Your task to perform on an android device: Empty the shopping cart on newegg. Search for "acer nitro" on newegg, select the first entry, add it to the cart, then select checkout. Image 0: 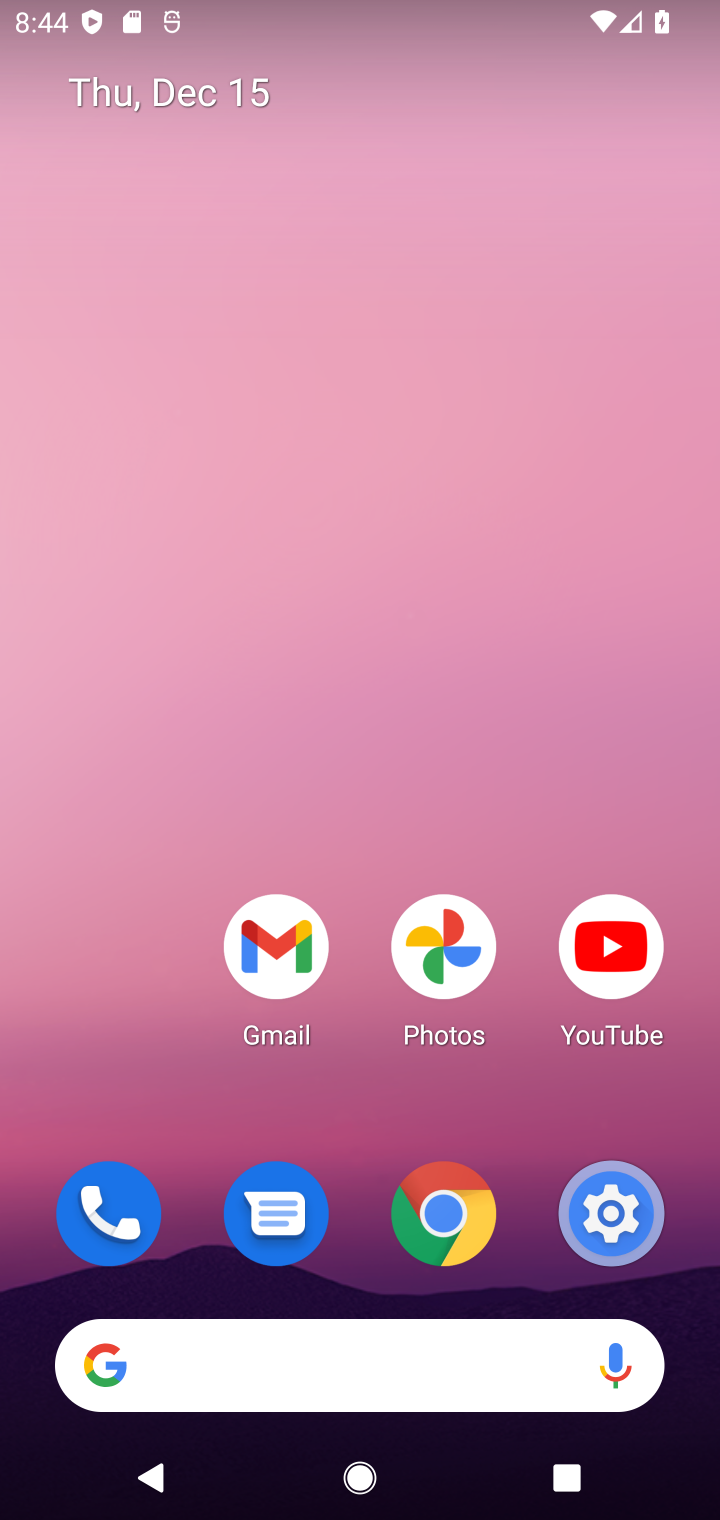
Step 0: drag from (370, 808) to (370, 89)
Your task to perform on an android device: Empty the shopping cart on newegg. Search for "acer nitro" on newegg, select the first entry, add it to the cart, then select checkout. Image 1: 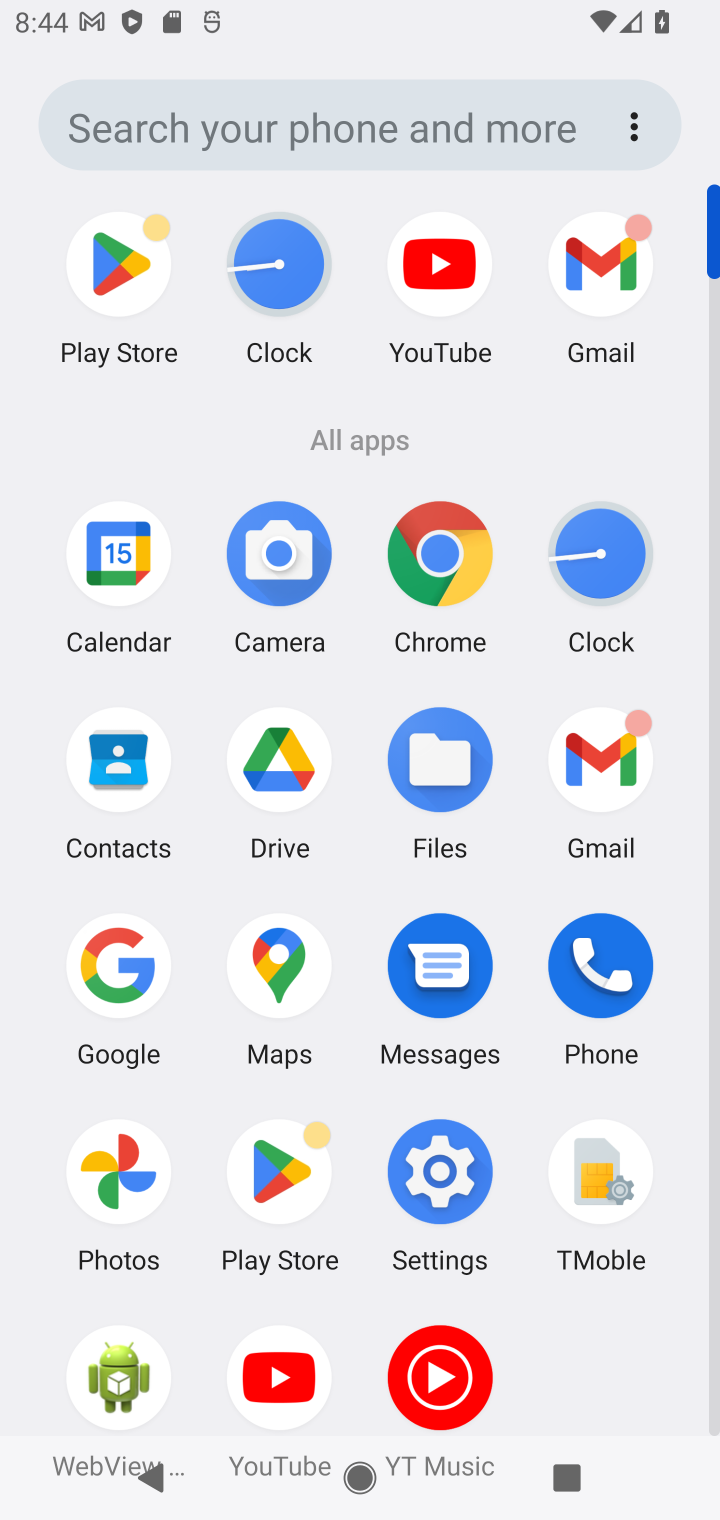
Step 1: click (112, 951)
Your task to perform on an android device: Empty the shopping cart on newegg. Search for "acer nitro" on newegg, select the first entry, add it to the cart, then select checkout. Image 2: 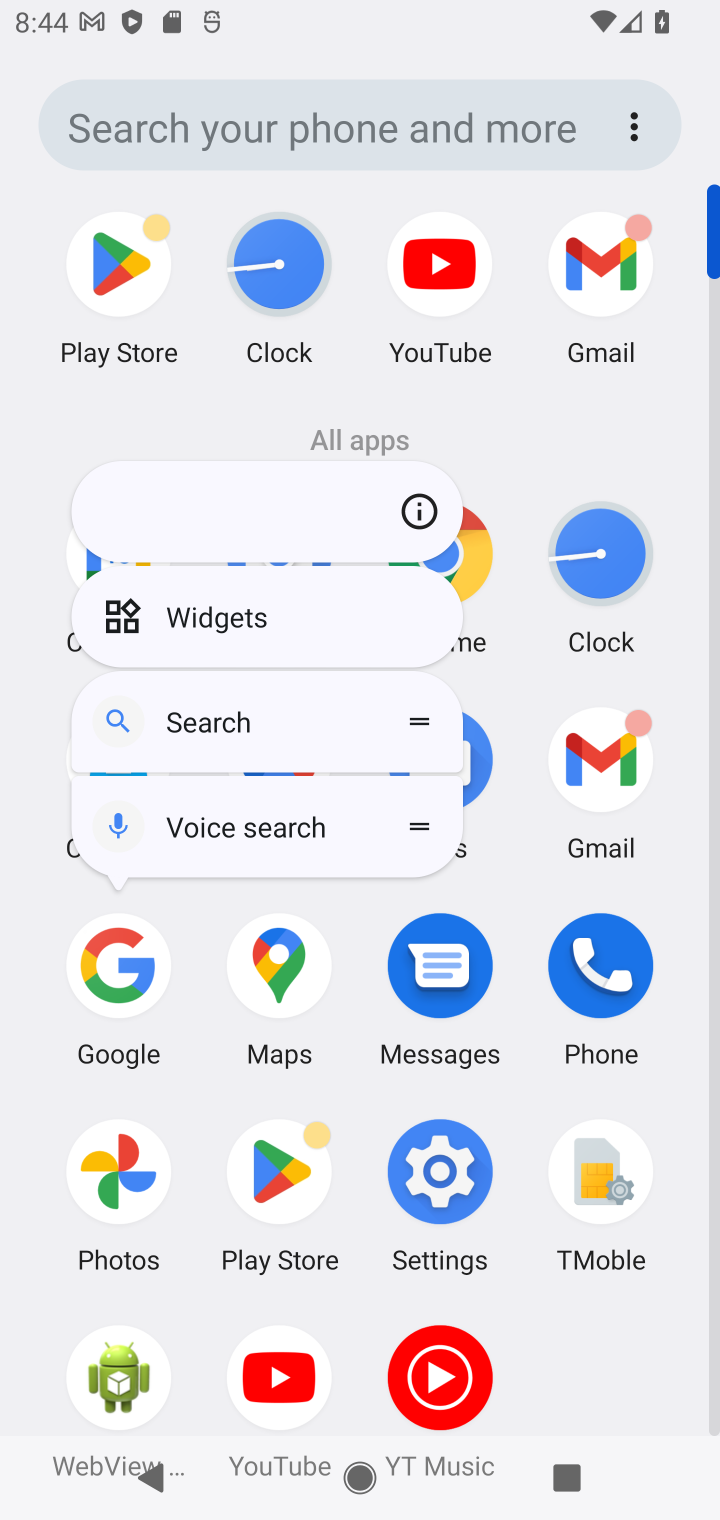
Step 2: click (132, 969)
Your task to perform on an android device: Empty the shopping cart on newegg. Search for "acer nitro" on newegg, select the first entry, add it to the cart, then select checkout. Image 3: 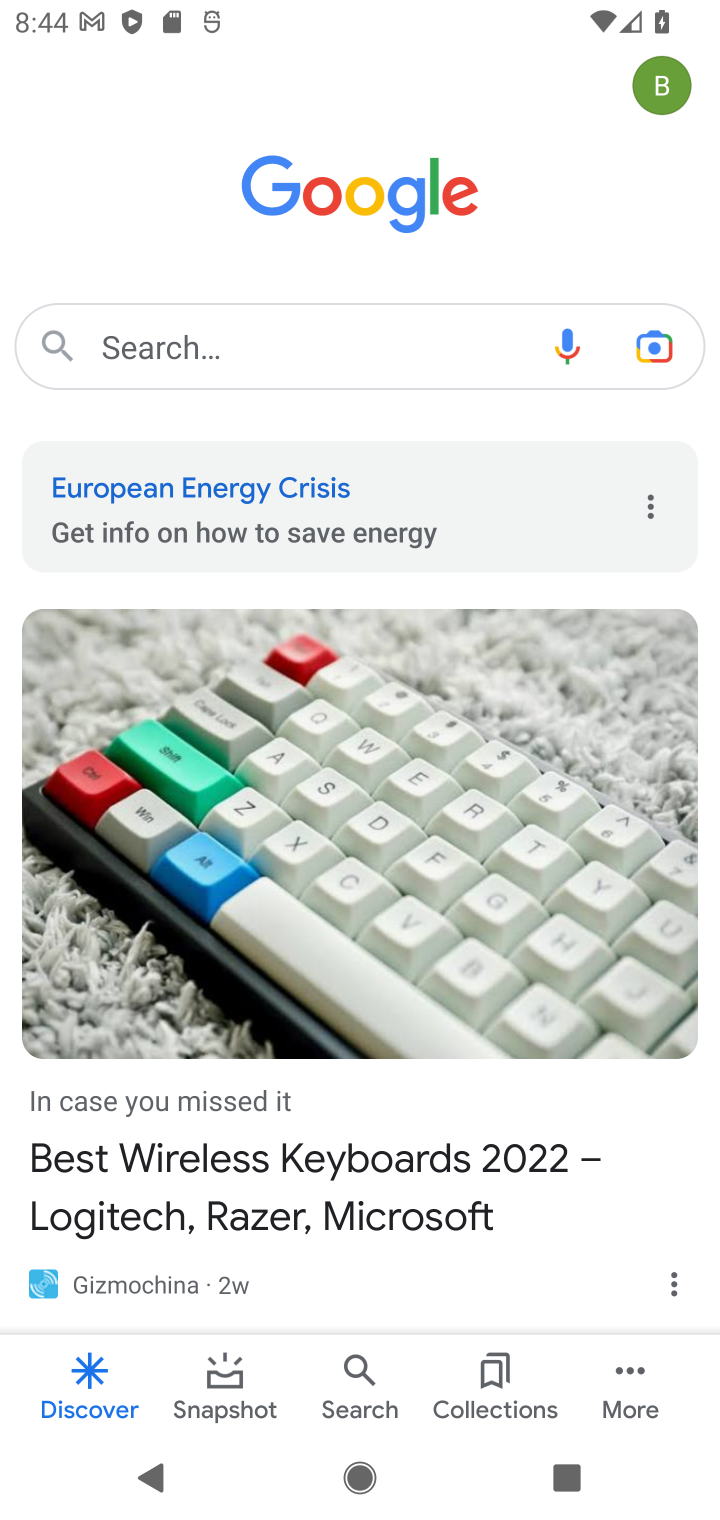
Step 3: click (155, 333)
Your task to perform on an android device: Empty the shopping cart on newegg. Search for "acer nitro" on newegg, select the first entry, add it to the cart, then select checkout. Image 4: 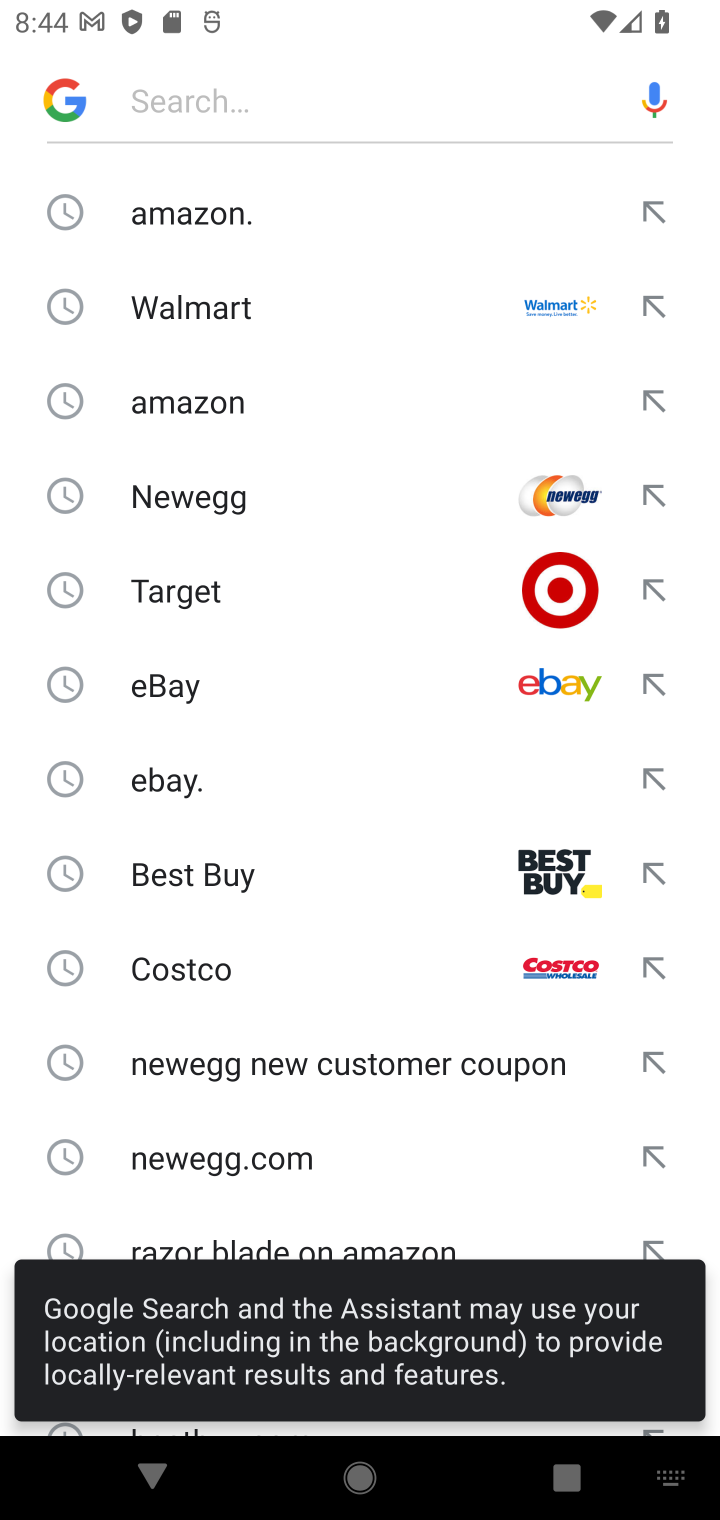
Step 4: click (186, 492)
Your task to perform on an android device: Empty the shopping cart on newegg. Search for "acer nitro" on newegg, select the first entry, add it to the cart, then select checkout. Image 5: 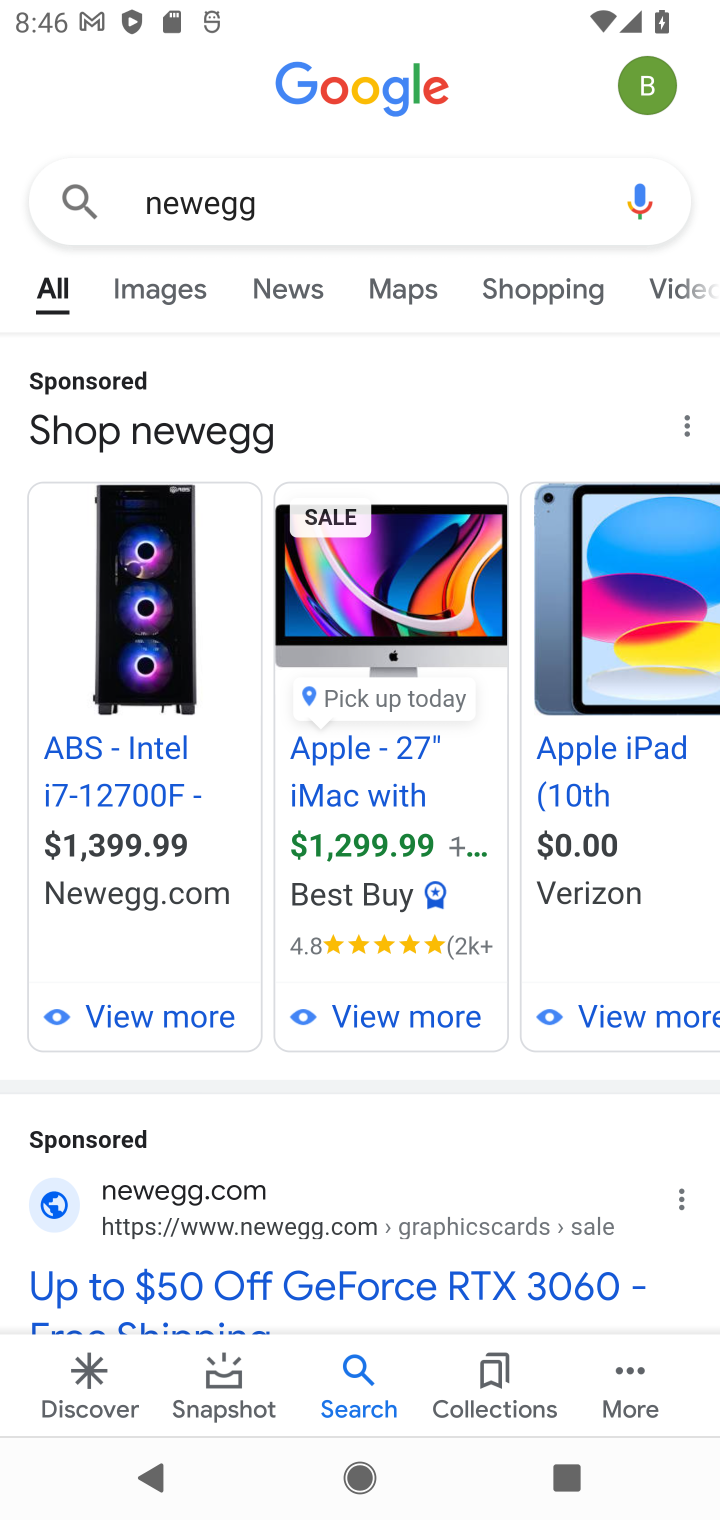
Step 5: drag from (301, 1006) to (382, 332)
Your task to perform on an android device: Empty the shopping cart on newegg. Search for "acer nitro" on newegg, select the first entry, add it to the cart, then select checkout. Image 6: 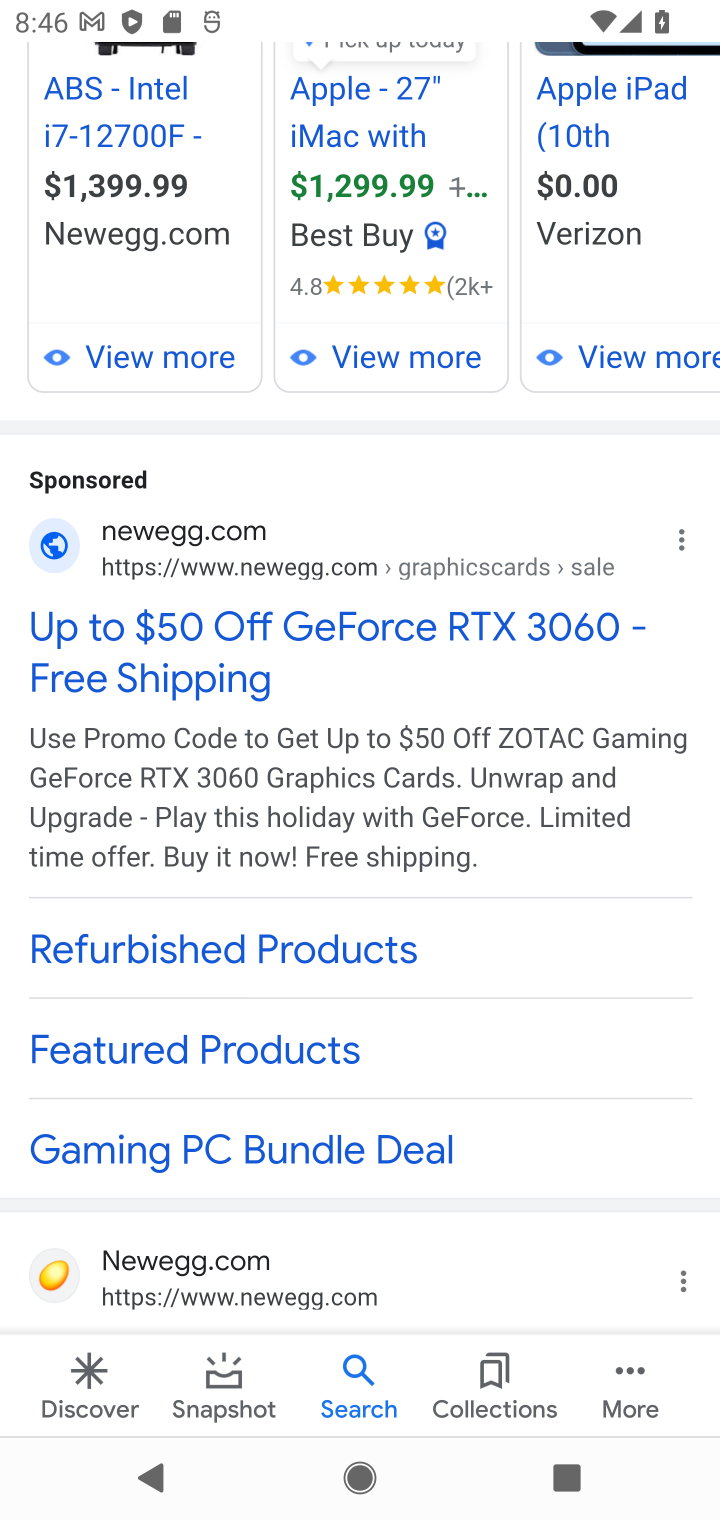
Step 6: drag from (246, 1167) to (253, 506)
Your task to perform on an android device: Empty the shopping cart on newegg. Search for "acer nitro" on newegg, select the first entry, add it to the cart, then select checkout. Image 7: 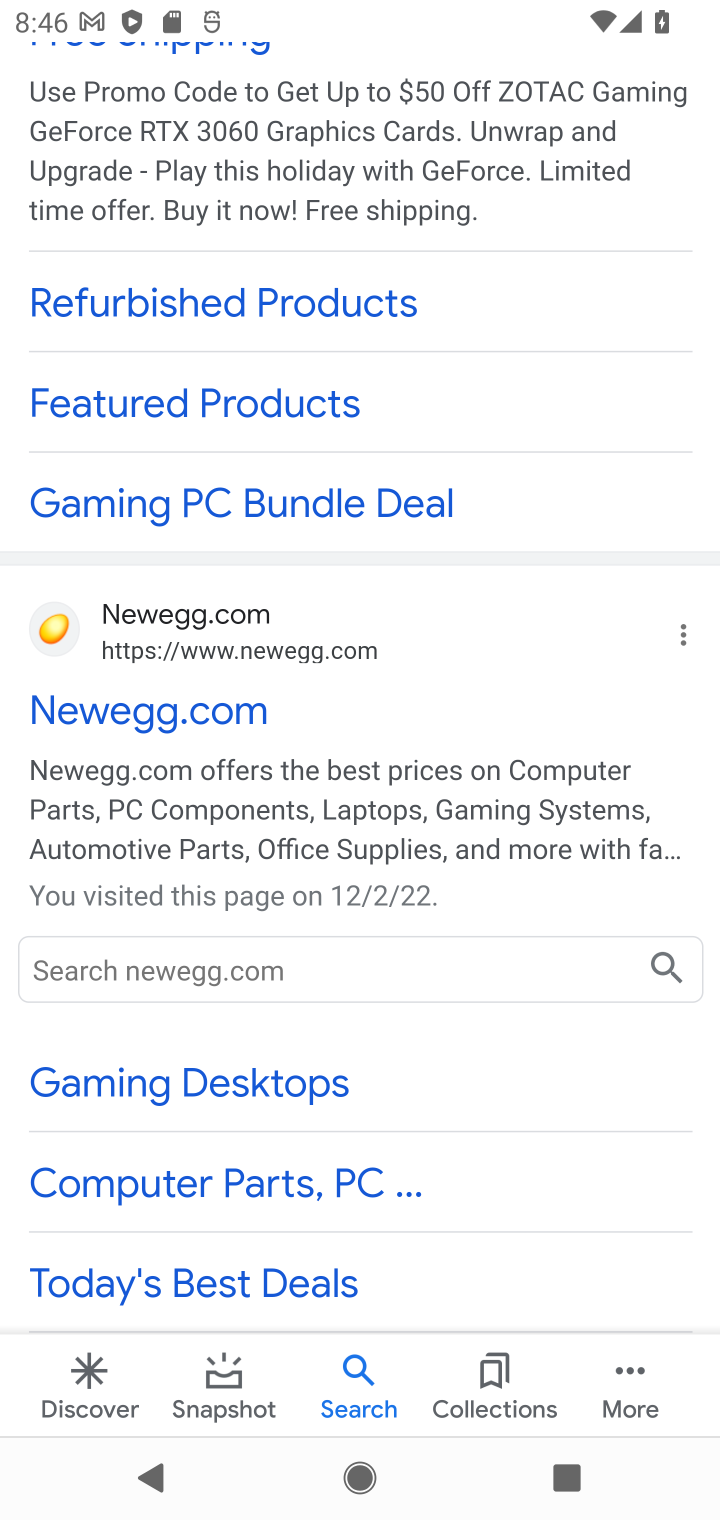
Step 7: click (162, 718)
Your task to perform on an android device: Empty the shopping cart on newegg. Search for "acer nitro" on newegg, select the first entry, add it to the cart, then select checkout. Image 8: 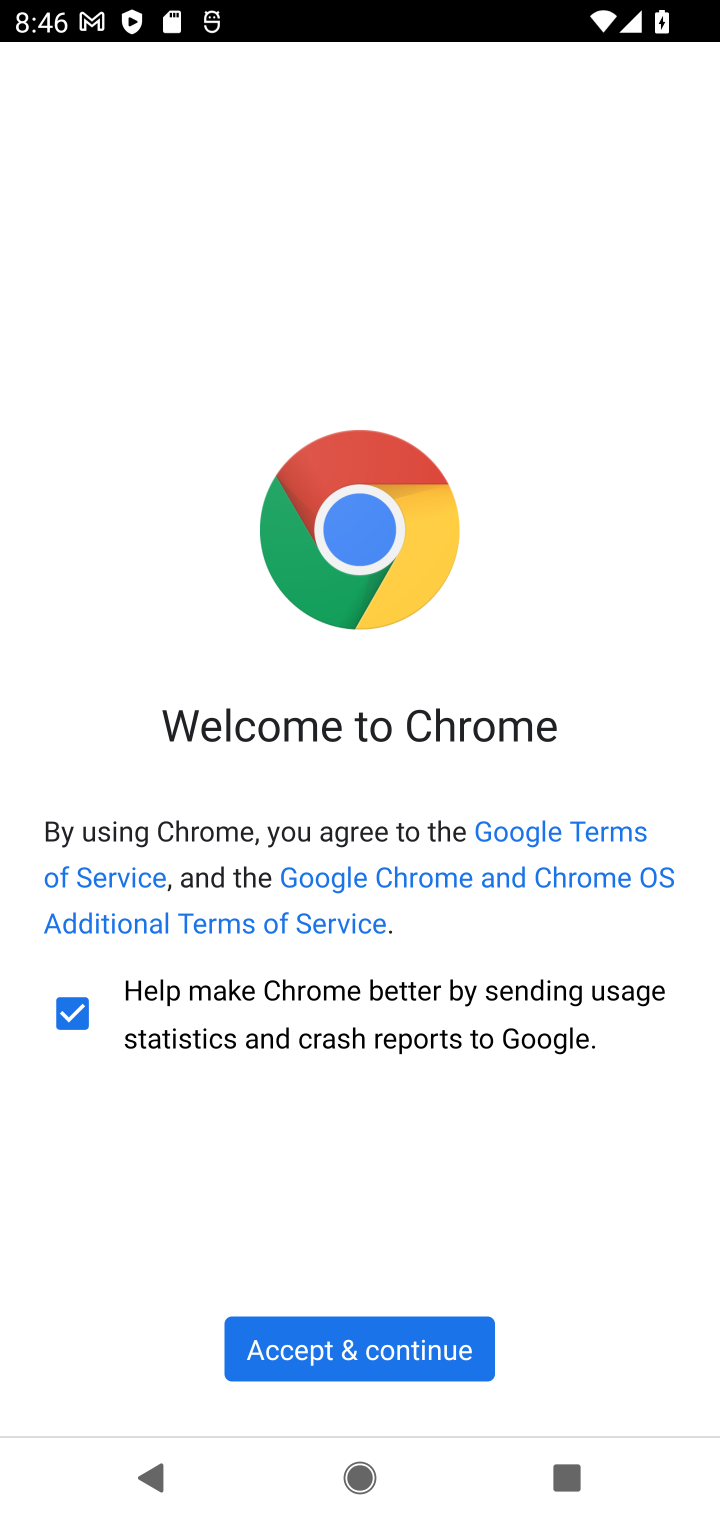
Step 8: click (340, 1360)
Your task to perform on an android device: Empty the shopping cart on newegg. Search for "acer nitro" on newegg, select the first entry, add it to the cart, then select checkout. Image 9: 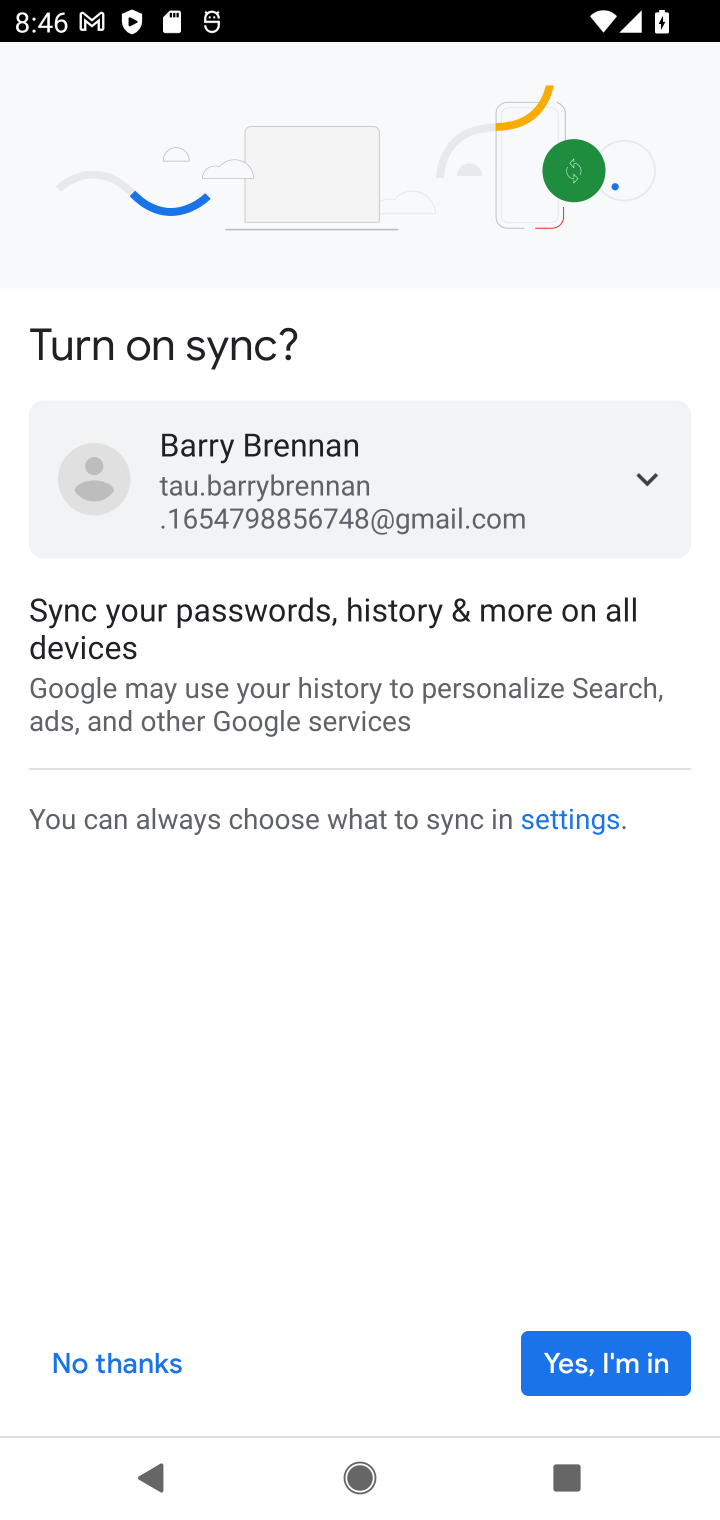
Step 9: click (564, 1362)
Your task to perform on an android device: Empty the shopping cart on newegg. Search for "acer nitro" on newegg, select the first entry, add it to the cart, then select checkout. Image 10: 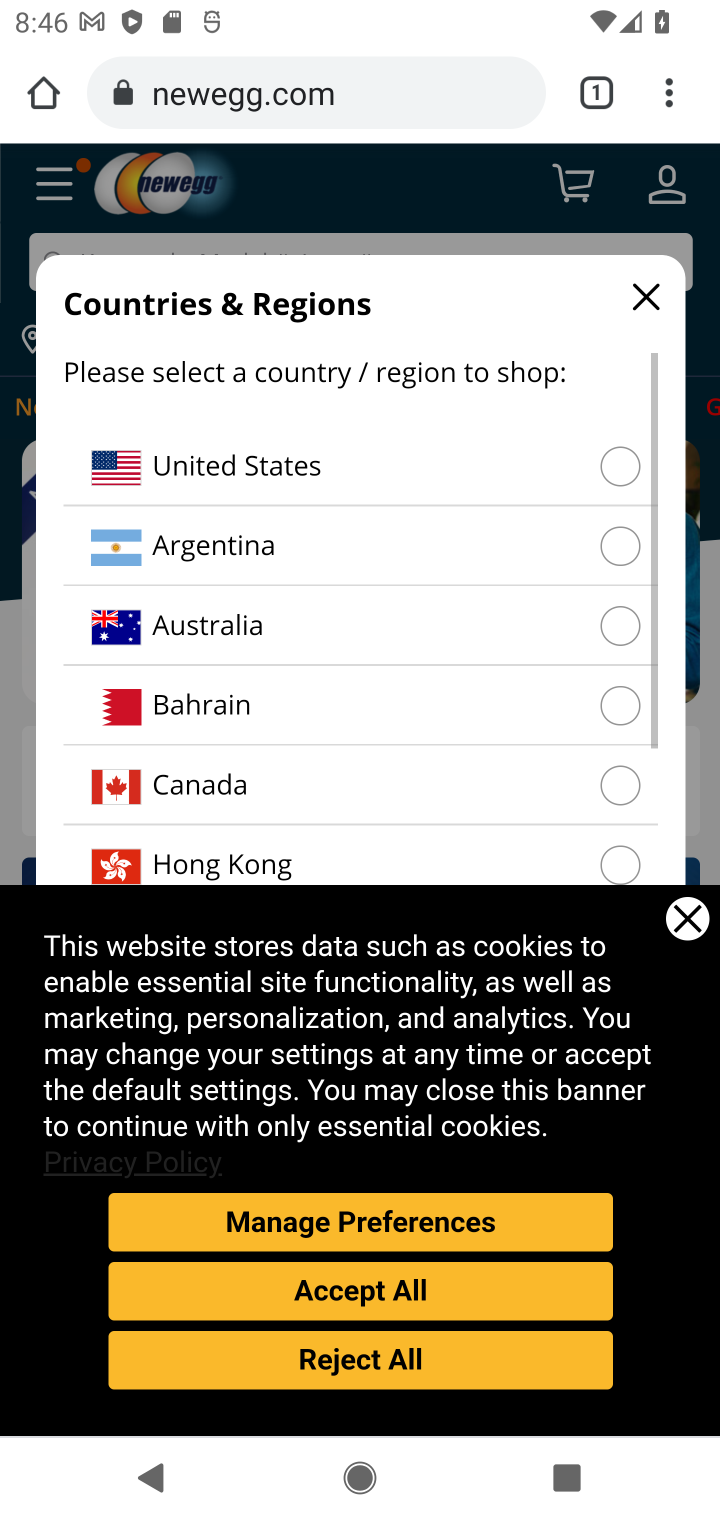
Step 10: click (646, 287)
Your task to perform on an android device: Empty the shopping cart on newegg. Search for "acer nitro" on newegg, select the first entry, add it to the cart, then select checkout. Image 11: 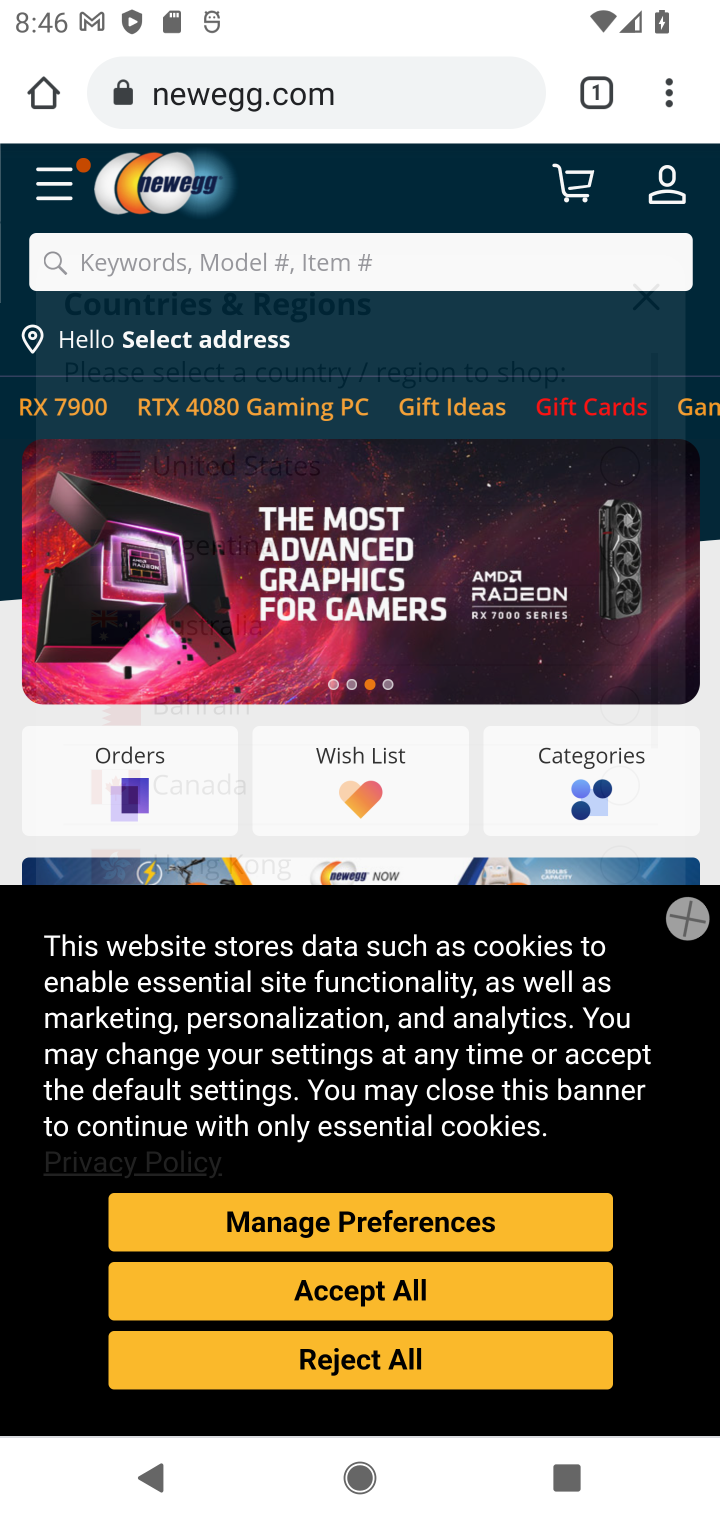
Step 11: click (618, 258)
Your task to perform on an android device: Empty the shopping cart on newegg. Search for "acer nitro" on newegg, select the first entry, add it to the cart, then select checkout. Image 12: 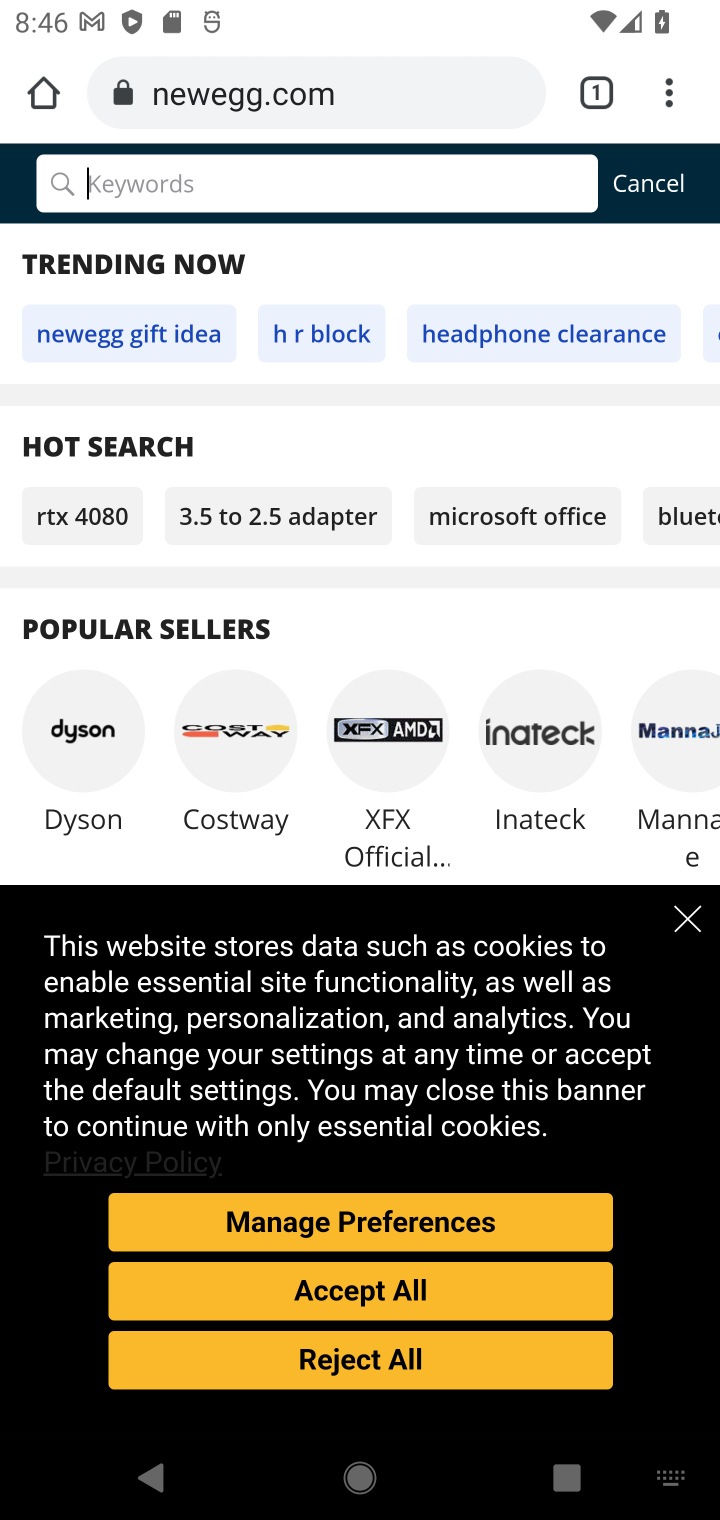
Step 12: type "acer nitro"
Your task to perform on an android device: Empty the shopping cart on newegg. Search for "acer nitro" on newegg, select the first entry, add it to the cart, then select checkout. Image 13: 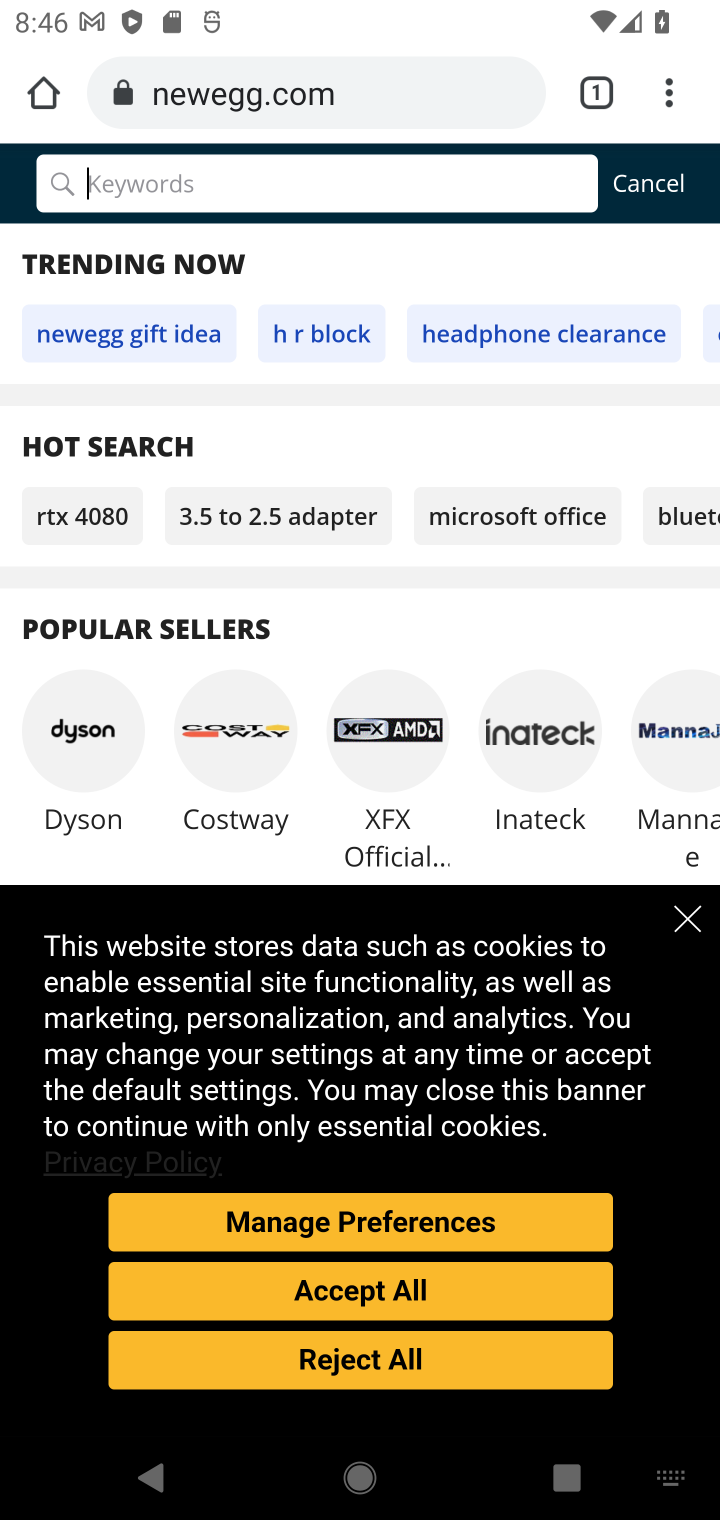
Step 13: click (65, 186)
Your task to perform on an android device: Empty the shopping cart on newegg. Search for "acer nitro" on newegg, select the first entry, add it to the cart, then select checkout. Image 14: 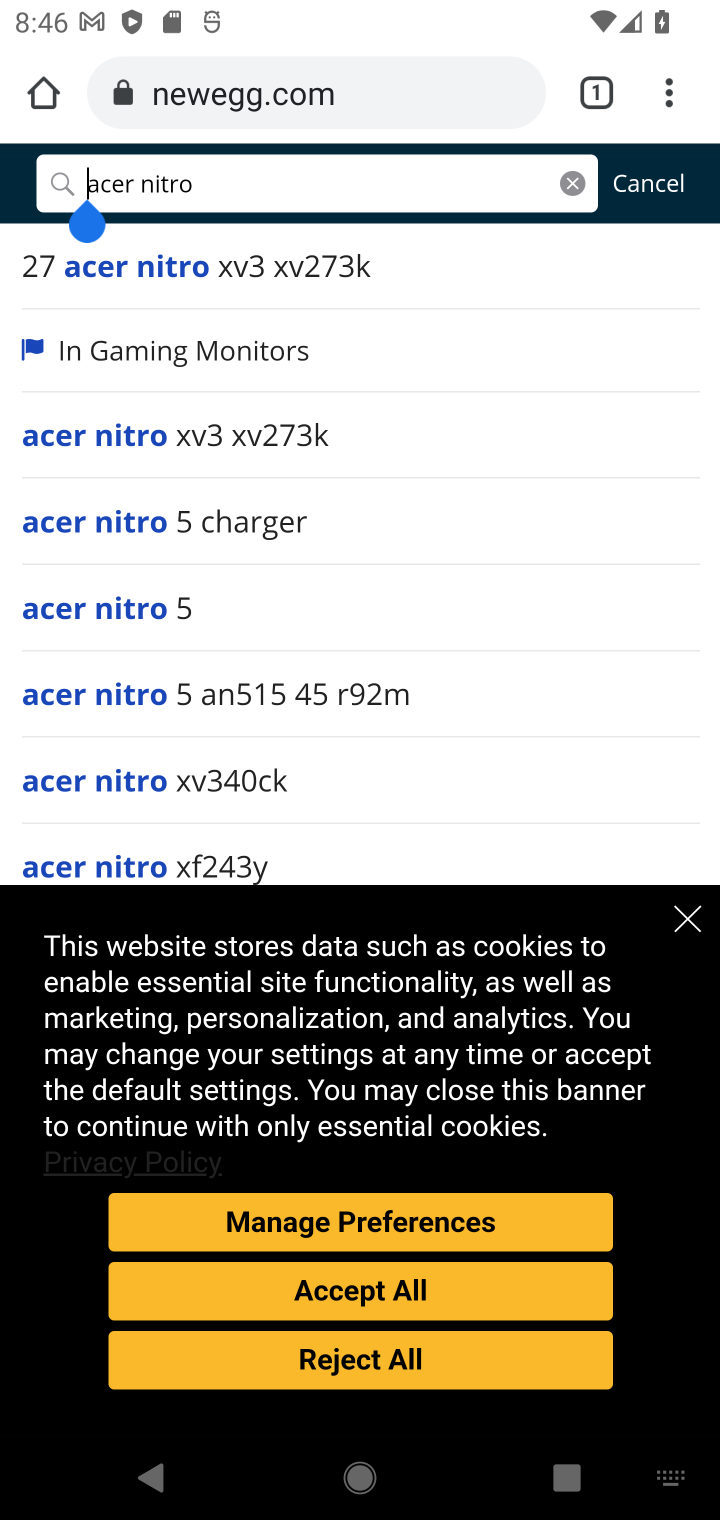
Step 14: click (114, 265)
Your task to perform on an android device: Empty the shopping cart on newegg. Search for "acer nitro" on newegg, select the first entry, add it to the cart, then select checkout. Image 15: 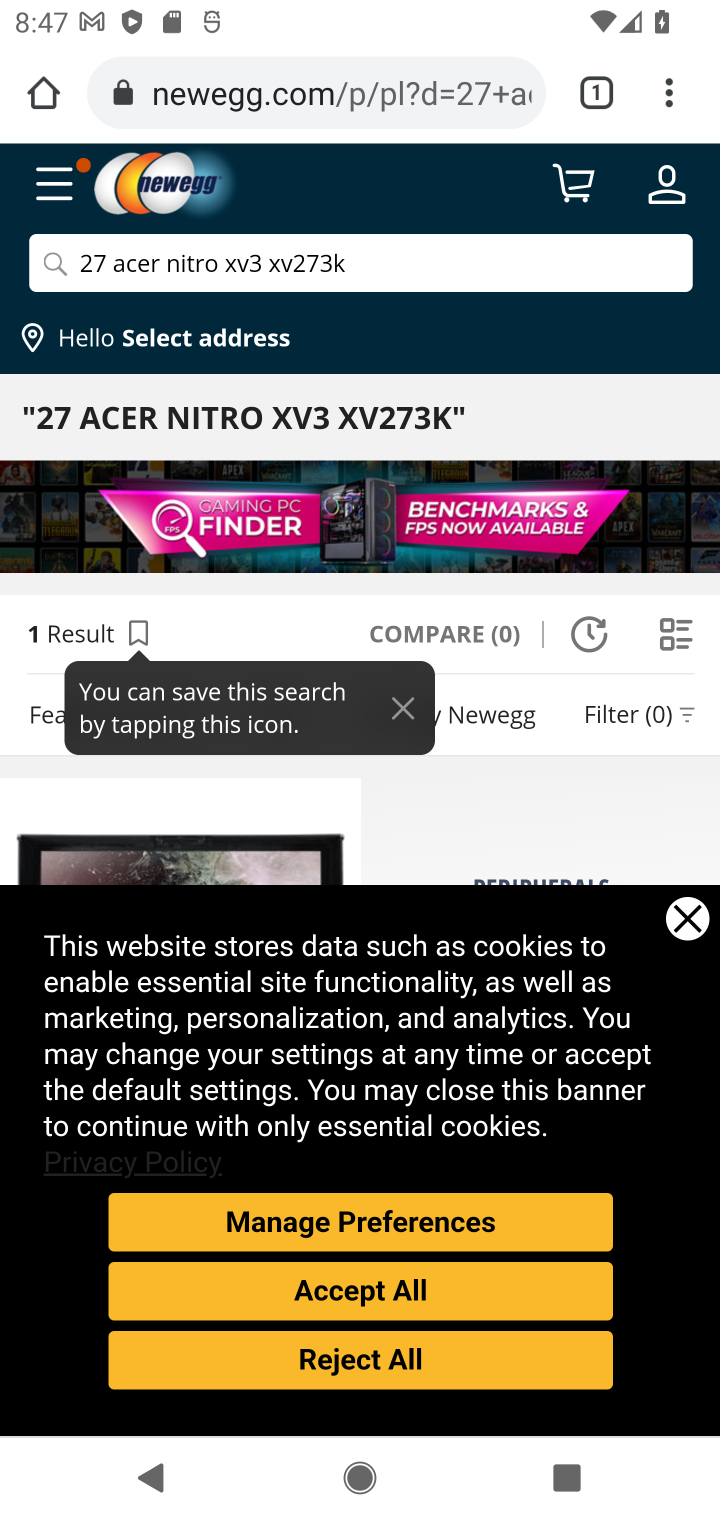
Step 15: click (687, 921)
Your task to perform on an android device: Empty the shopping cart on newegg. Search for "acer nitro" on newegg, select the first entry, add it to the cart, then select checkout. Image 16: 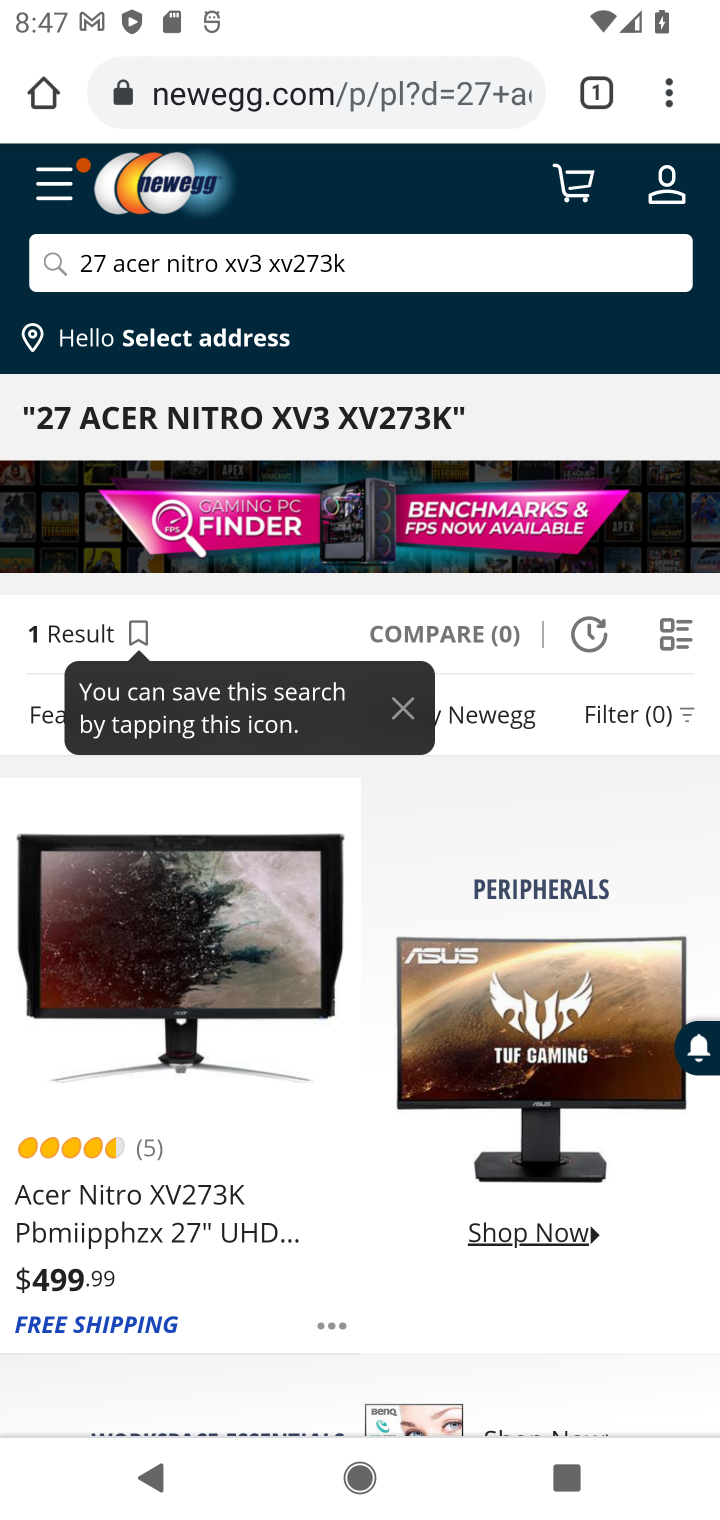
Step 16: drag from (267, 1229) to (369, 517)
Your task to perform on an android device: Empty the shopping cart on newegg. Search for "acer nitro" on newegg, select the first entry, add it to the cart, then select checkout. Image 17: 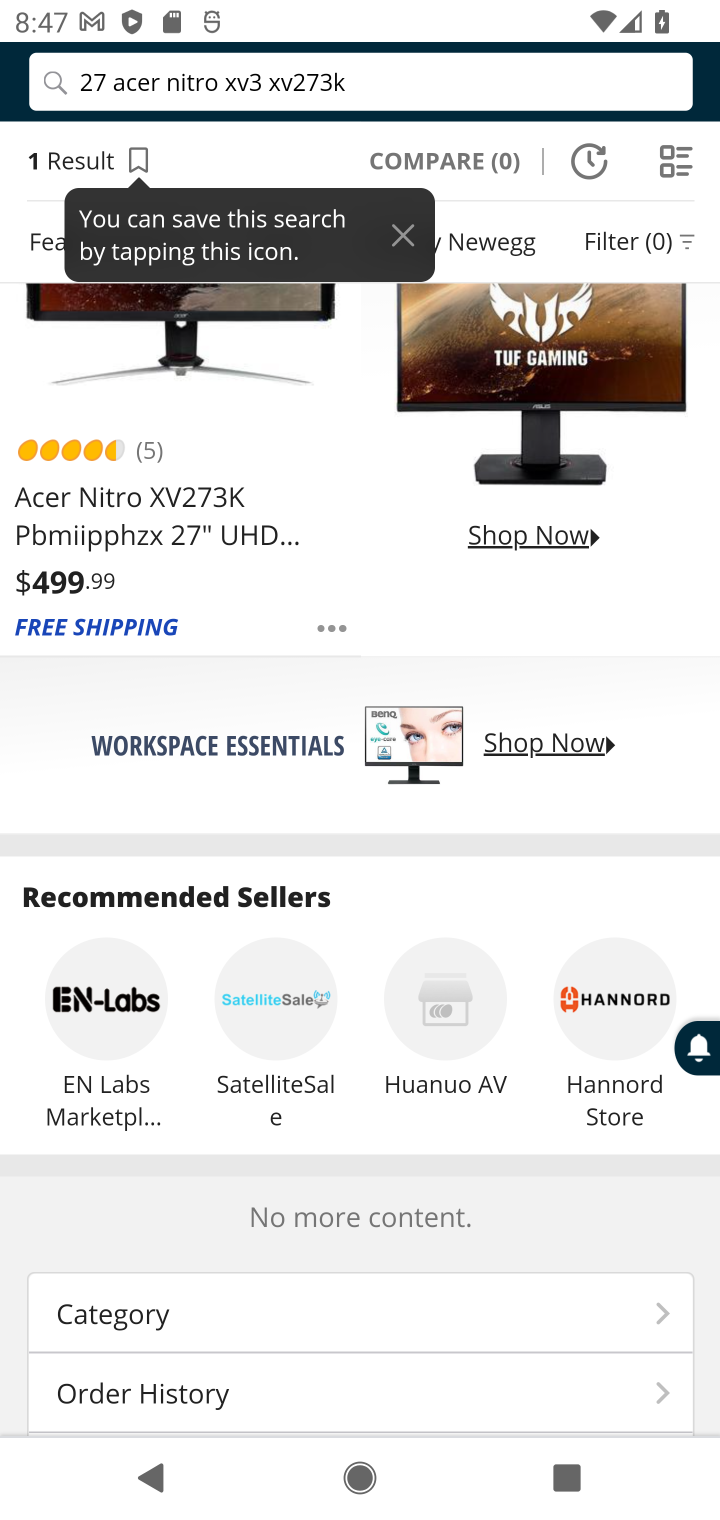
Step 17: click (133, 477)
Your task to perform on an android device: Empty the shopping cart on newegg. Search for "acer nitro" on newegg, select the first entry, add it to the cart, then select checkout. Image 18: 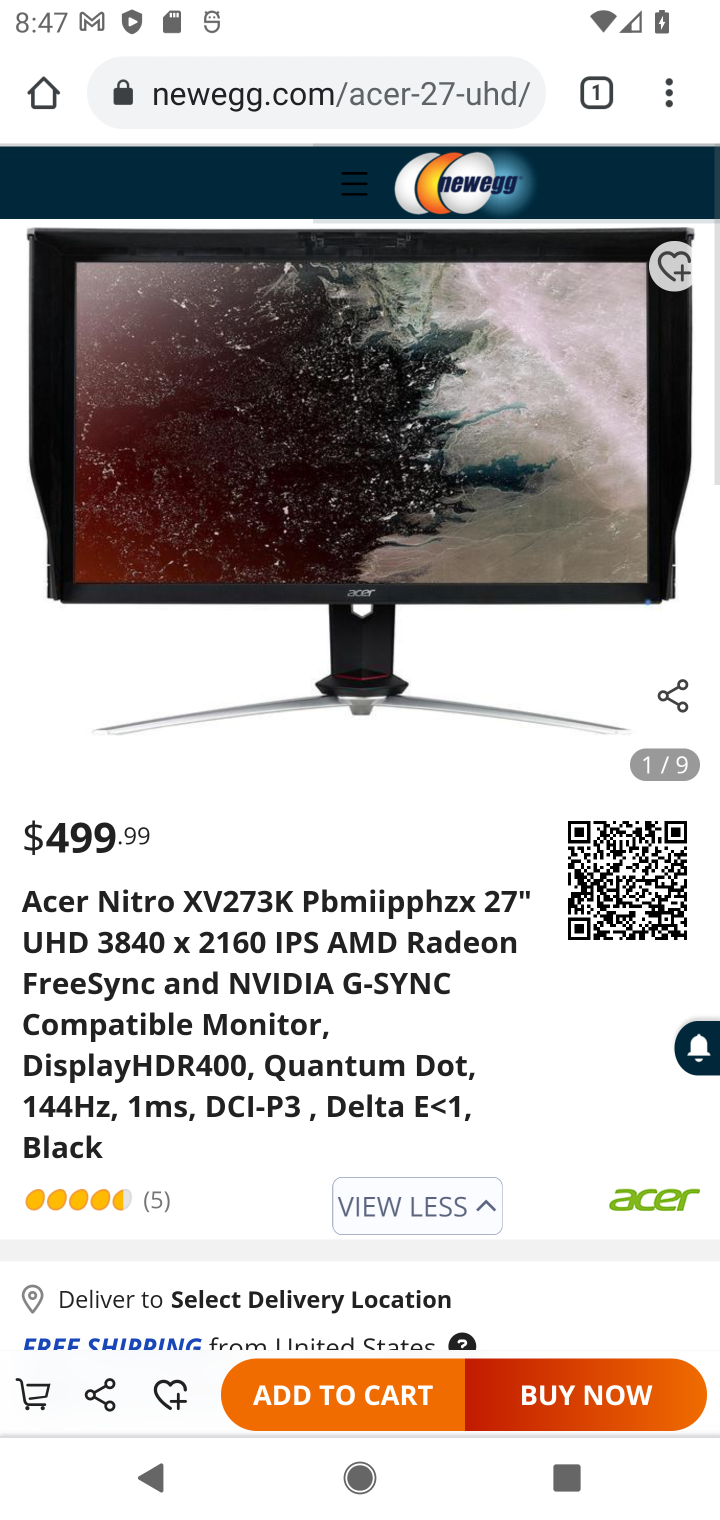
Step 18: click (98, 516)
Your task to perform on an android device: Empty the shopping cart on newegg. Search for "acer nitro" on newegg, select the first entry, add it to the cart, then select checkout. Image 19: 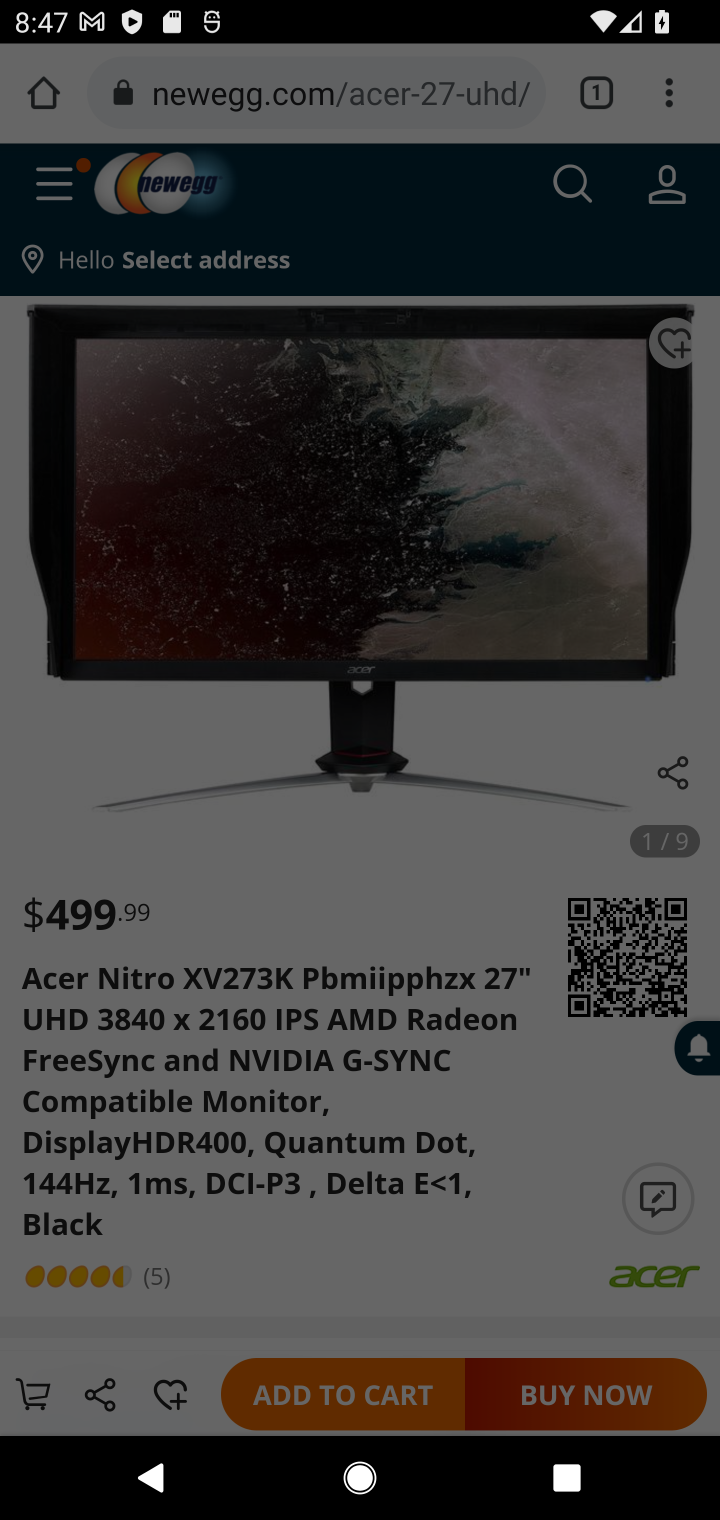
Step 19: click (333, 1408)
Your task to perform on an android device: Empty the shopping cart on newegg. Search for "acer nitro" on newegg, select the first entry, add it to the cart, then select checkout. Image 20: 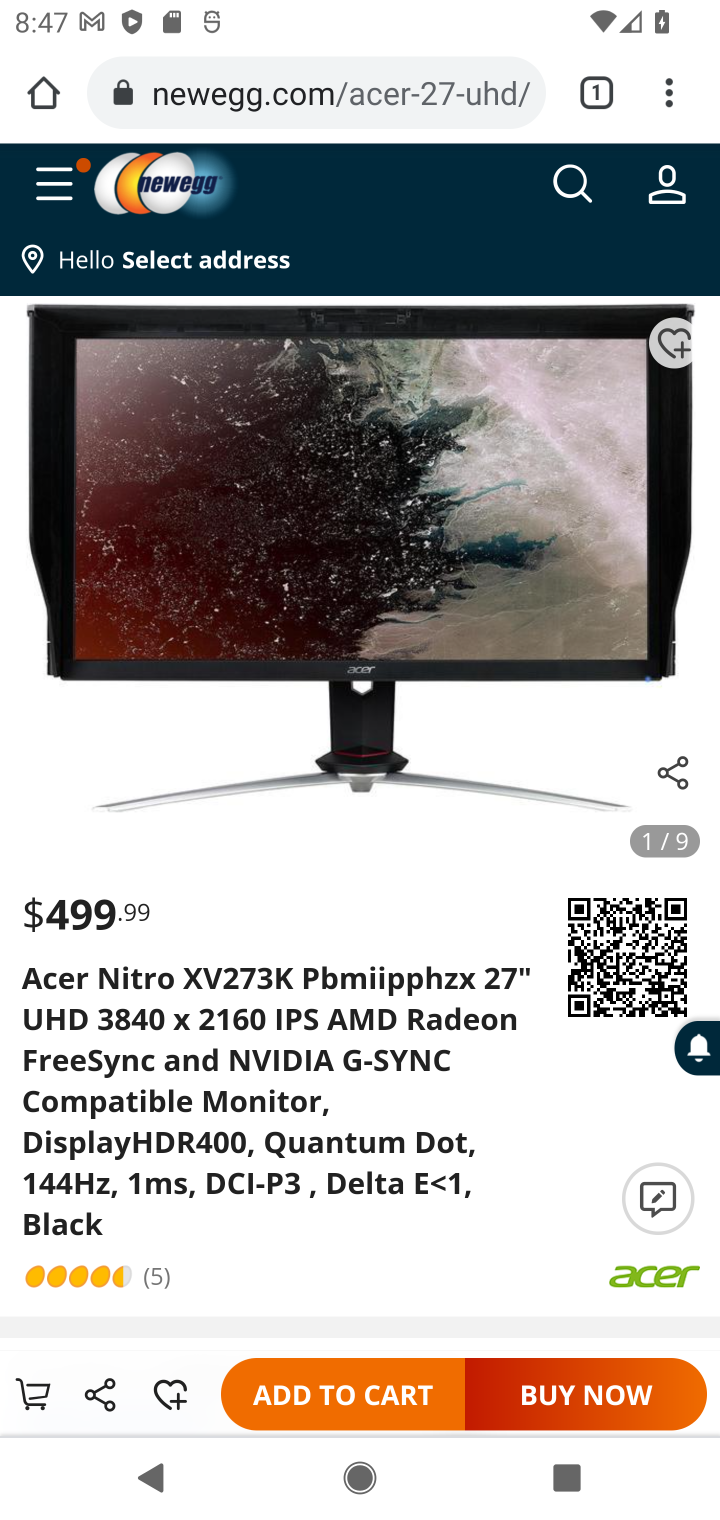
Step 20: drag from (373, 1220) to (480, 628)
Your task to perform on an android device: Empty the shopping cart on newegg. Search for "acer nitro" on newegg, select the first entry, add it to the cart, then select checkout. Image 21: 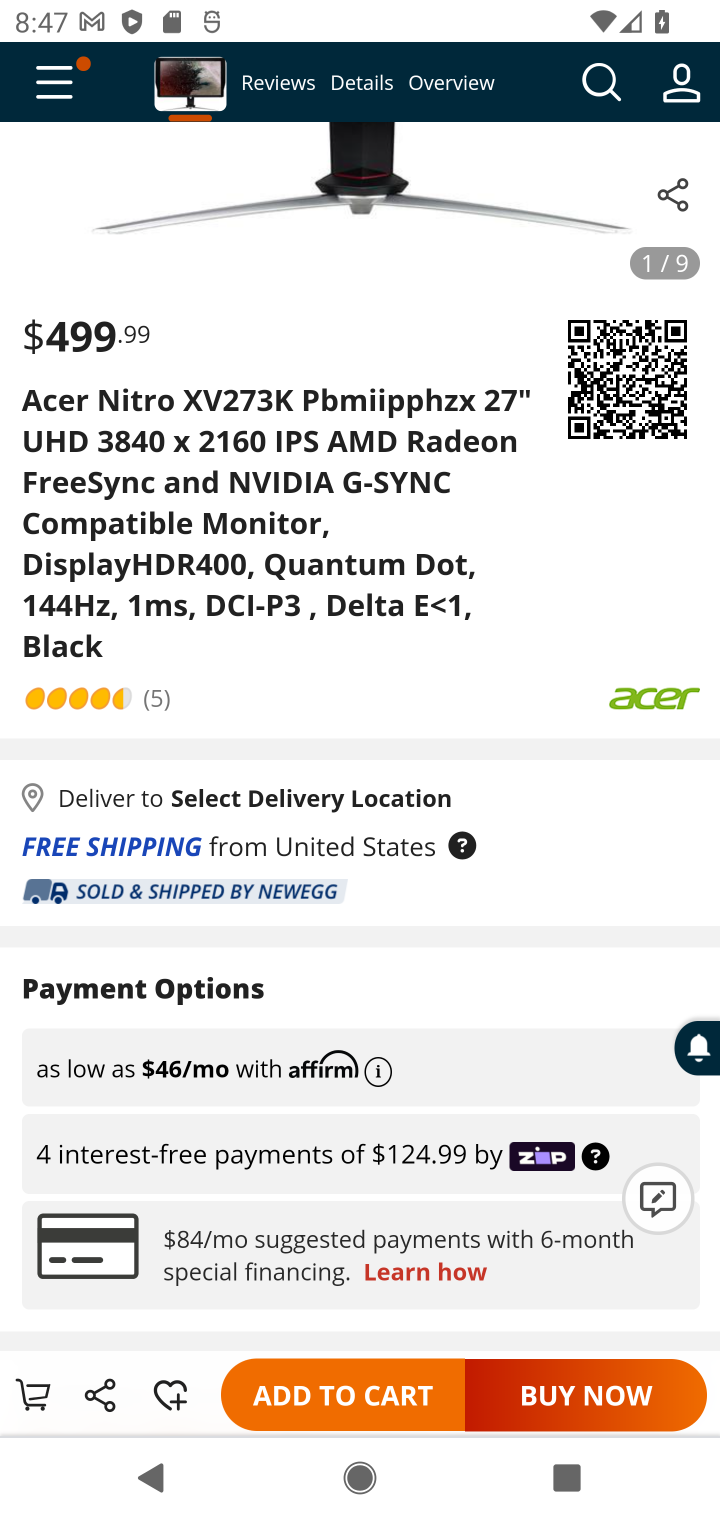
Step 21: click (287, 1401)
Your task to perform on an android device: Empty the shopping cart on newegg. Search for "acer nitro" on newegg, select the first entry, add it to the cart, then select checkout. Image 22: 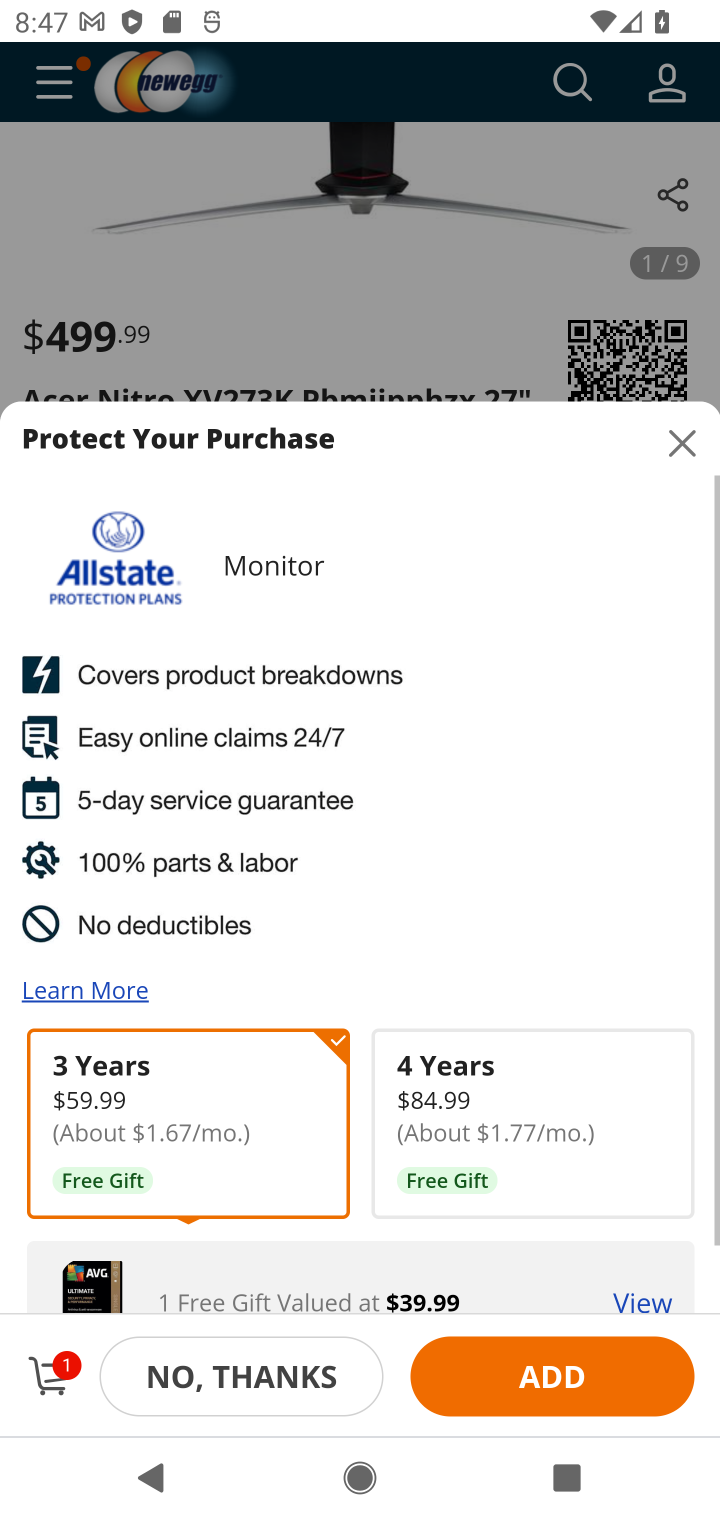
Step 22: click (678, 444)
Your task to perform on an android device: Empty the shopping cart on newegg. Search for "acer nitro" on newegg, select the first entry, add it to the cart, then select checkout. Image 23: 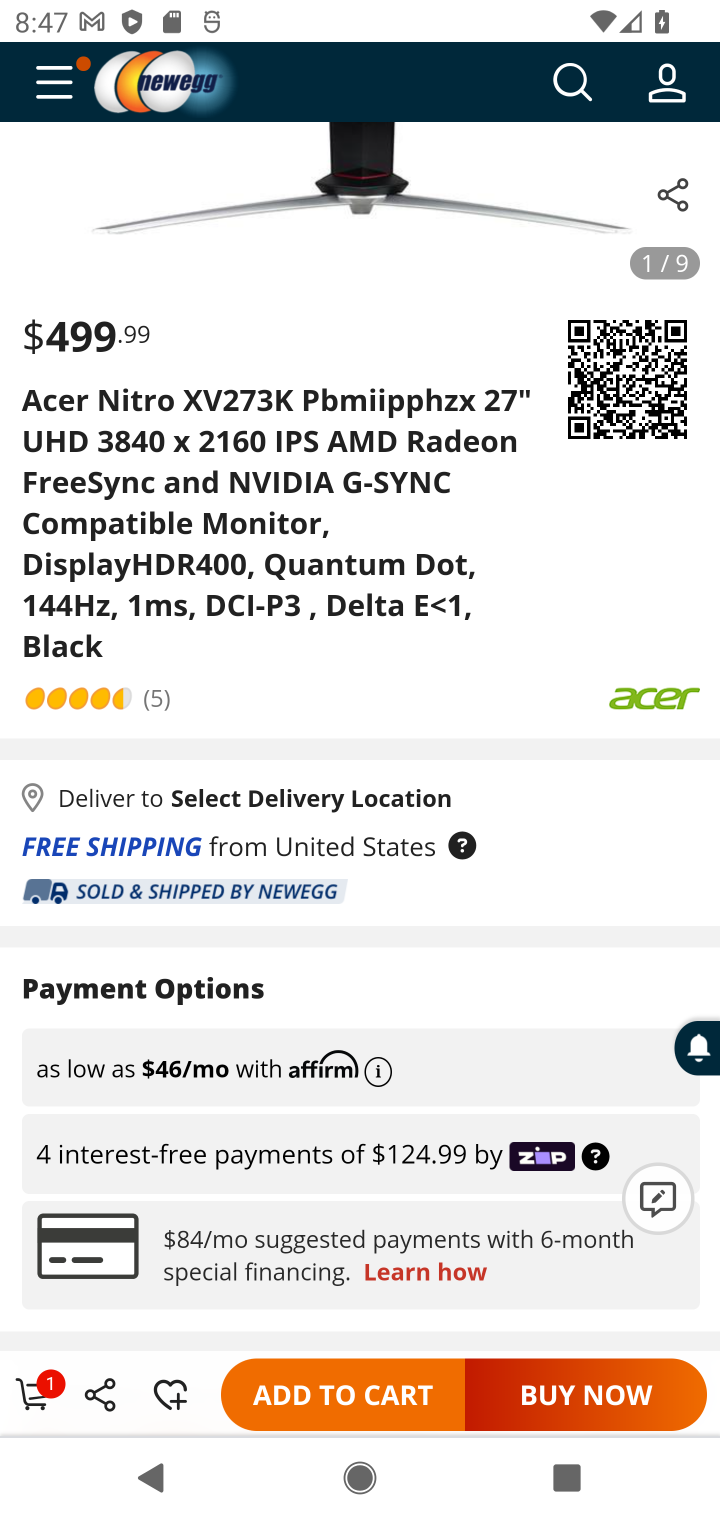
Step 23: drag from (455, 1023) to (506, 406)
Your task to perform on an android device: Empty the shopping cart on newegg. Search for "acer nitro" on newegg, select the first entry, add it to the cart, then select checkout. Image 24: 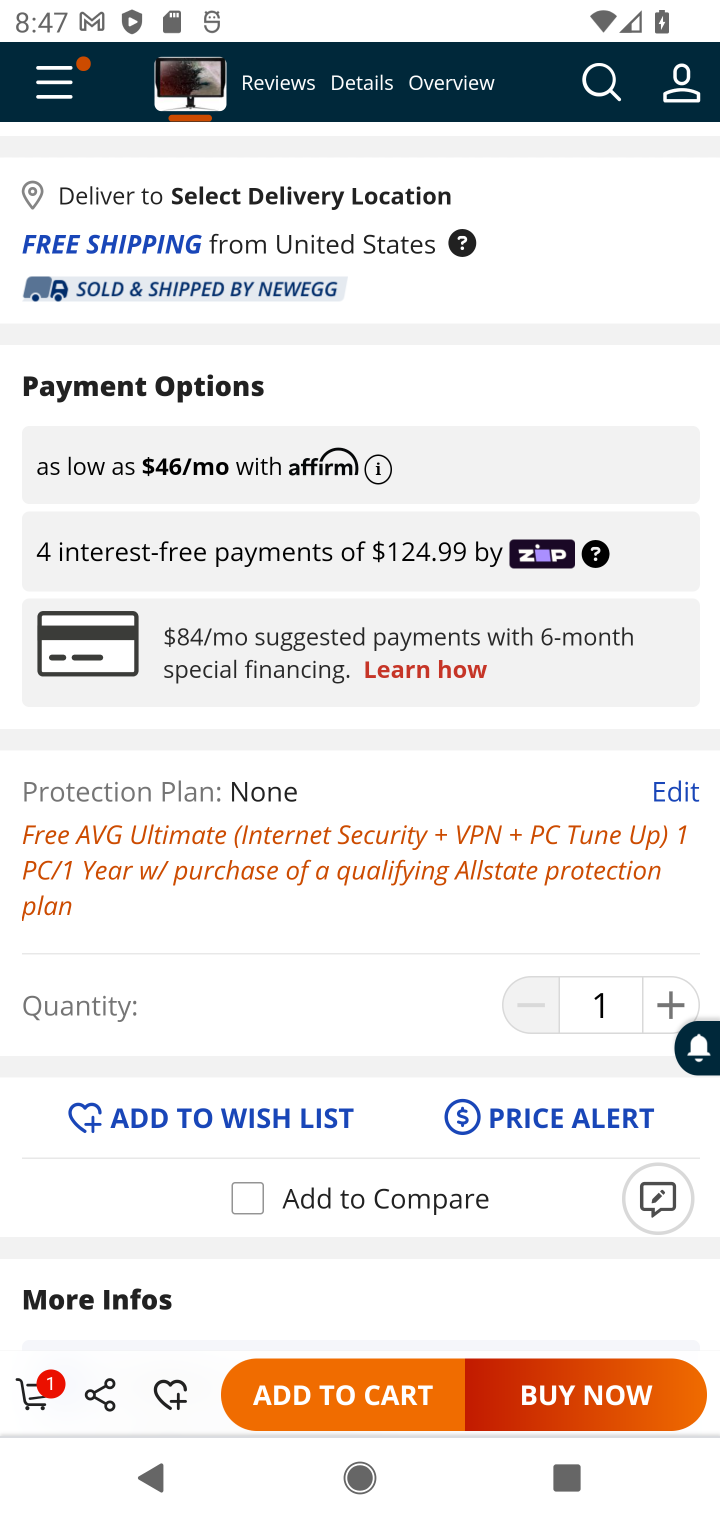
Step 24: click (363, 1402)
Your task to perform on an android device: Empty the shopping cart on newegg. Search for "acer nitro" on newegg, select the first entry, add it to the cart, then select checkout. Image 25: 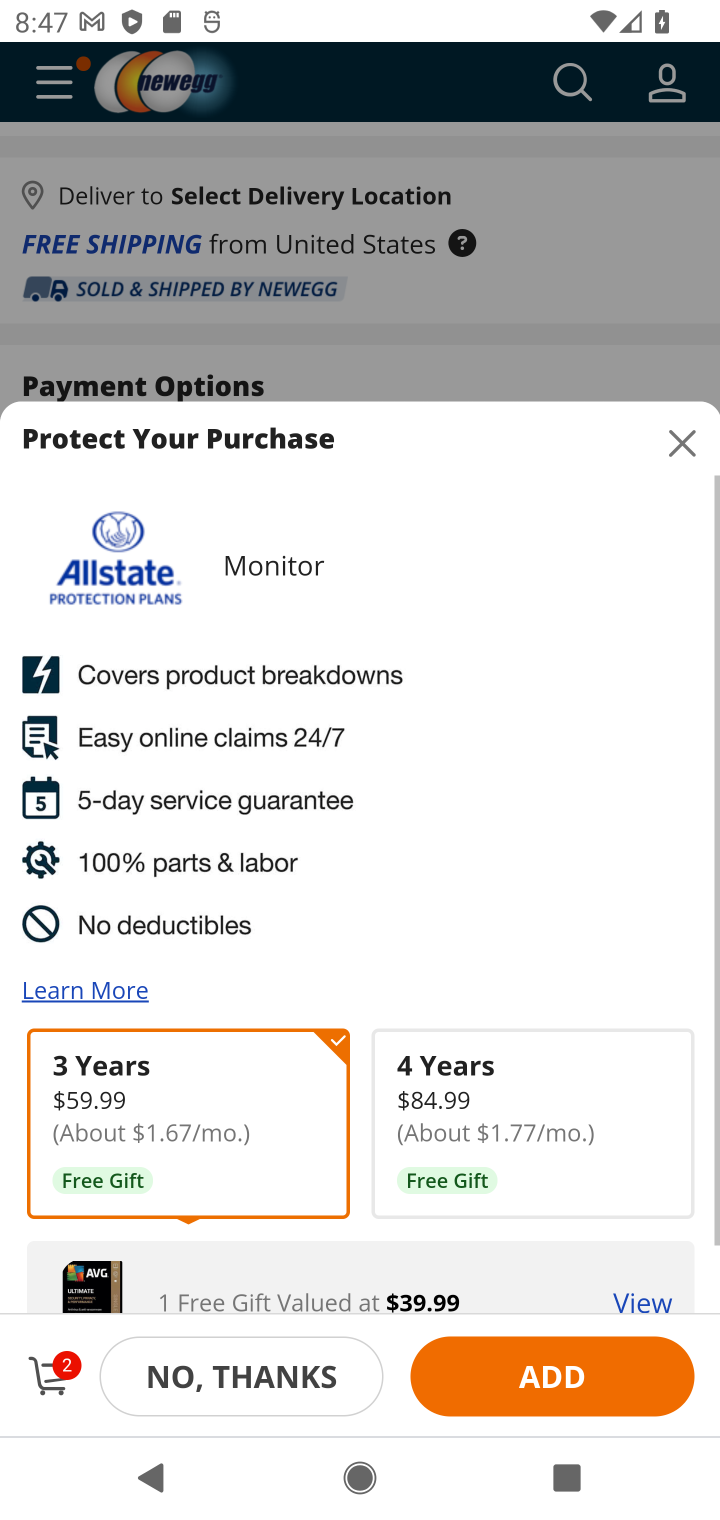
Step 25: task complete